Your task to perform on an android device: Open Maps and search for coffee Image 0: 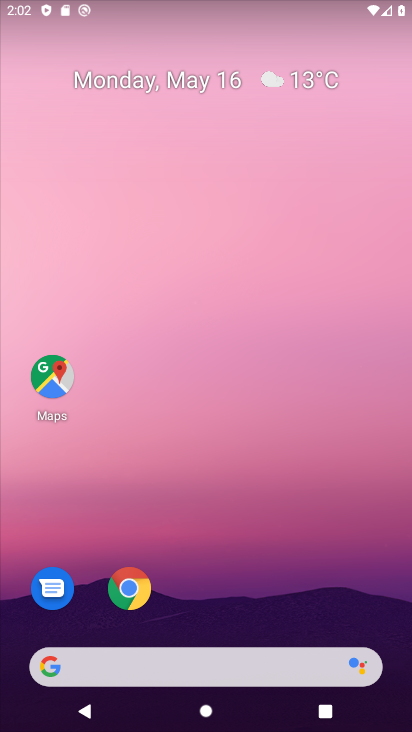
Step 0: drag from (272, 515) to (286, 6)
Your task to perform on an android device: Open Maps and search for coffee Image 1: 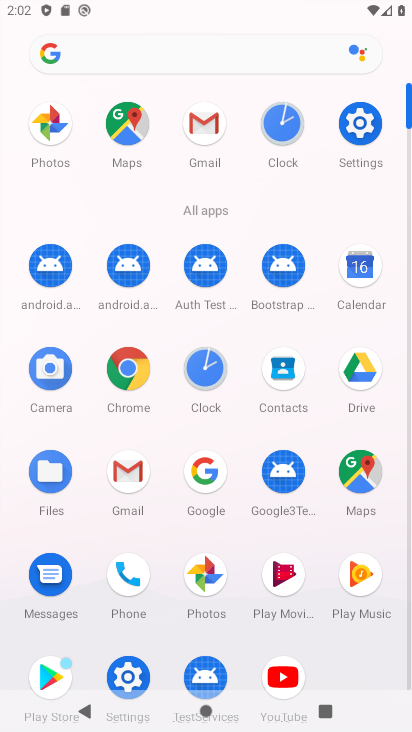
Step 1: click (362, 473)
Your task to perform on an android device: Open Maps and search for coffee Image 2: 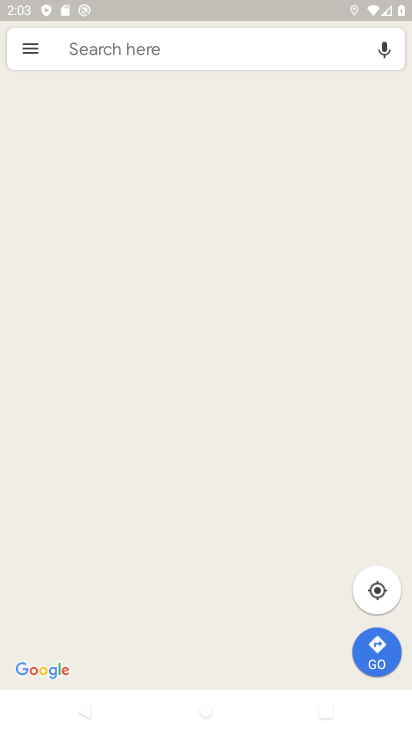
Step 2: click (188, 42)
Your task to perform on an android device: Open Maps and search for coffee Image 3: 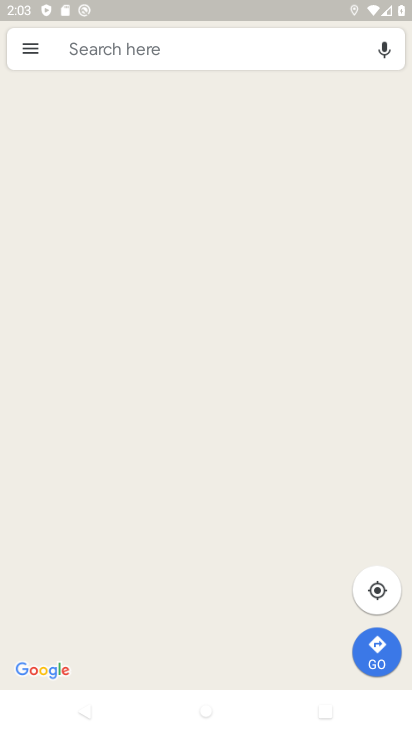
Step 3: click (188, 47)
Your task to perform on an android device: Open Maps and search for coffee Image 4: 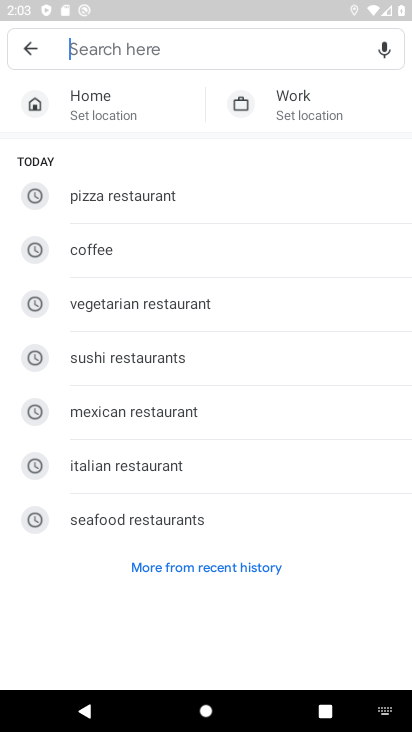
Step 4: type "coffee"
Your task to perform on an android device: Open Maps and search for coffee Image 5: 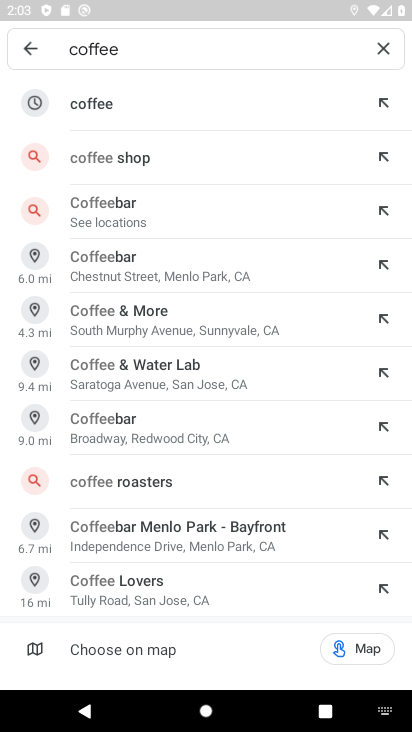
Step 5: click (158, 120)
Your task to perform on an android device: Open Maps and search for coffee Image 6: 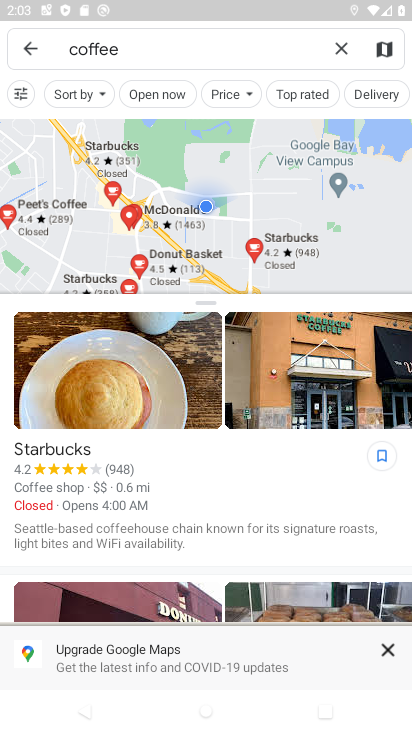
Step 6: task complete